Your task to perform on an android device: Clear the shopping cart on amazon. Add dell alienware to the cart on amazon Image 0: 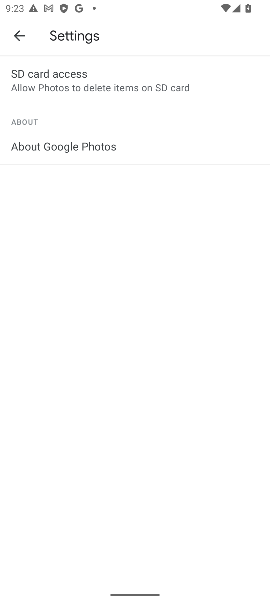
Step 0: press home button
Your task to perform on an android device: Clear the shopping cart on amazon. Add dell alienware to the cart on amazon Image 1: 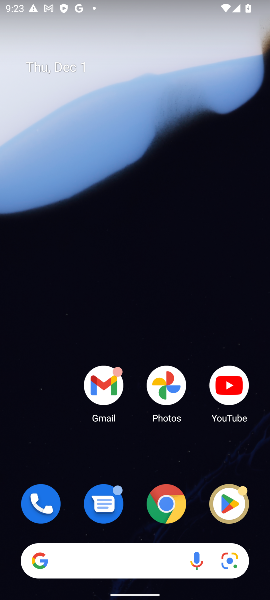
Step 1: click (168, 515)
Your task to perform on an android device: Clear the shopping cart on amazon. Add dell alienware to the cart on amazon Image 2: 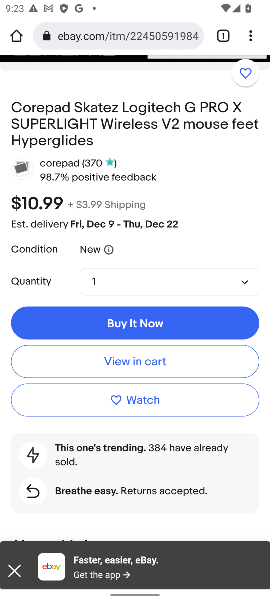
Step 2: click (90, 37)
Your task to perform on an android device: Clear the shopping cart on amazon. Add dell alienware to the cart on amazon Image 3: 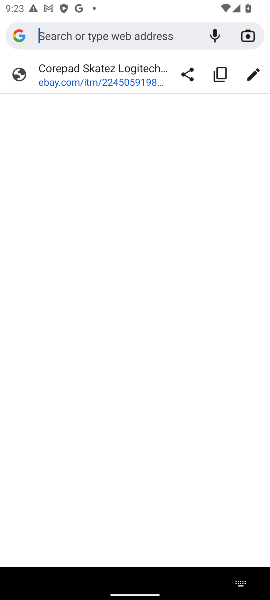
Step 3: type "amazon"
Your task to perform on an android device: Clear the shopping cart on amazon. Add dell alienware to the cart on amazon Image 4: 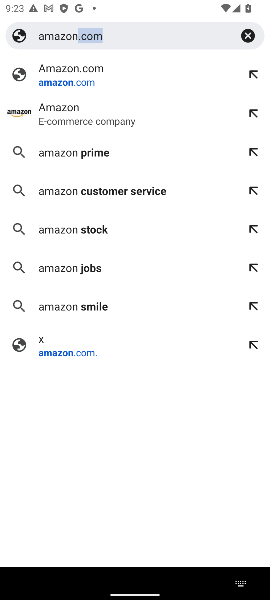
Step 4: click (71, 73)
Your task to perform on an android device: Clear the shopping cart on amazon. Add dell alienware to the cart on amazon Image 5: 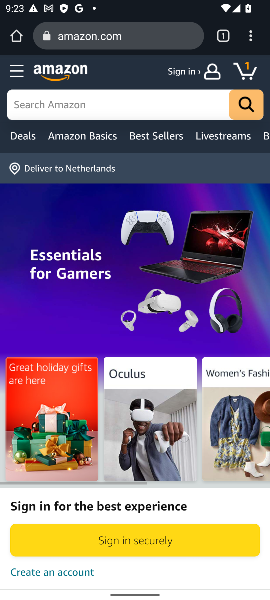
Step 5: click (142, 98)
Your task to perform on an android device: Clear the shopping cart on amazon. Add dell alienware to the cart on amazon Image 6: 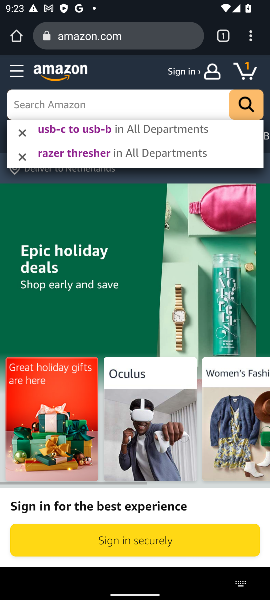
Step 6: type "dell alienware"
Your task to perform on an android device: Clear the shopping cart on amazon. Add dell alienware to the cart on amazon Image 7: 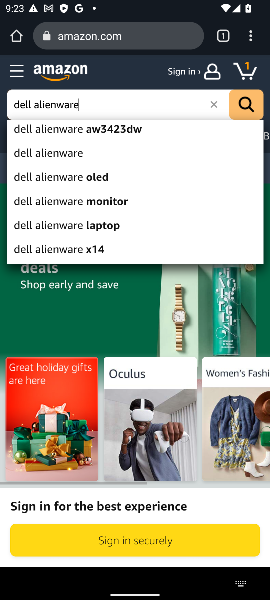
Step 7: click (82, 130)
Your task to perform on an android device: Clear the shopping cart on amazon. Add dell alienware to the cart on amazon Image 8: 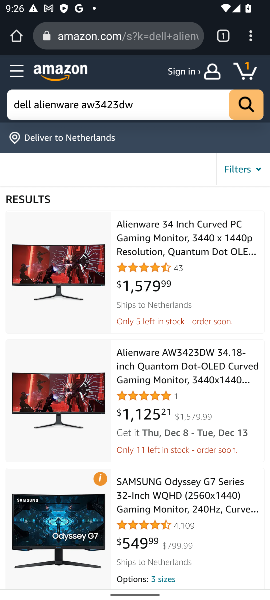
Step 8: click (67, 271)
Your task to perform on an android device: Clear the shopping cart on amazon. Add dell alienware to the cart on amazon Image 9: 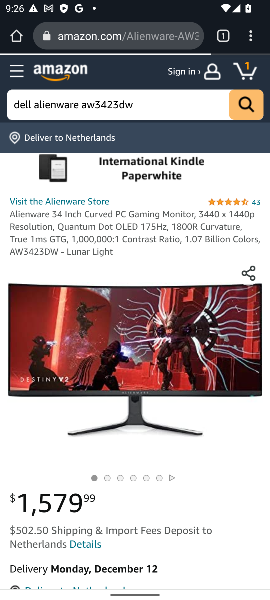
Step 9: drag from (159, 515) to (134, 97)
Your task to perform on an android device: Clear the shopping cart on amazon. Add dell alienware to the cart on amazon Image 10: 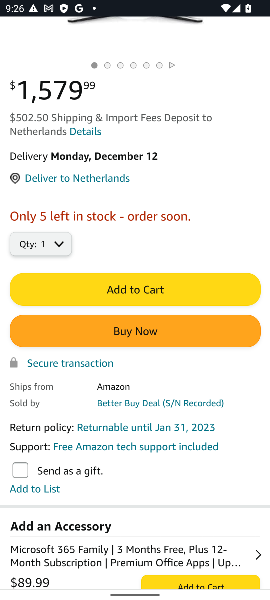
Step 10: click (135, 284)
Your task to perform on an android device: Clear the shopping cart on amazon. Add dell alienware to the cart on amazon Image 11: 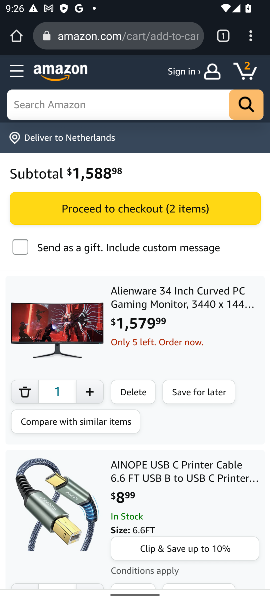
Step 11: task complete